Your task to perform on an android device: What is the recent news? Image 0: 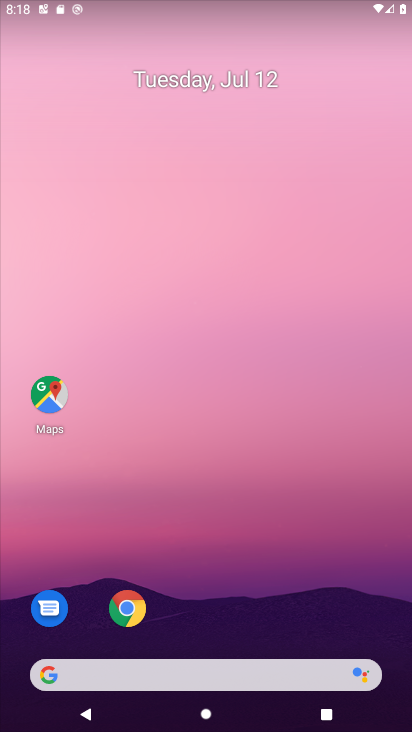
Step 0: click (165, 678)
Your task to perform on an android device: What is the recent news? Image 1: 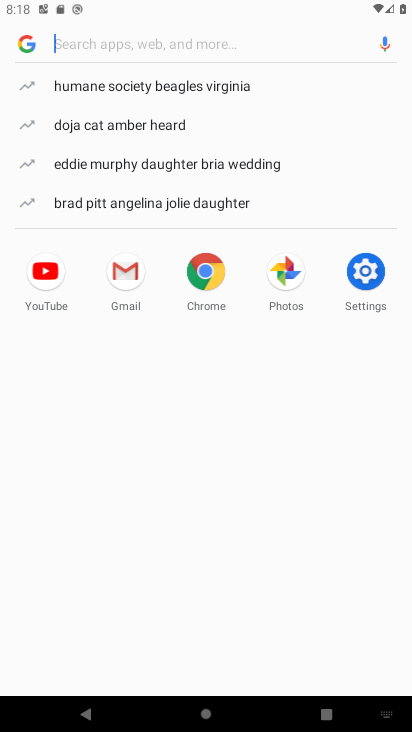
Step 1: click (270, 41)
Your task to perform on an android device: What is the recent news? Image 2: 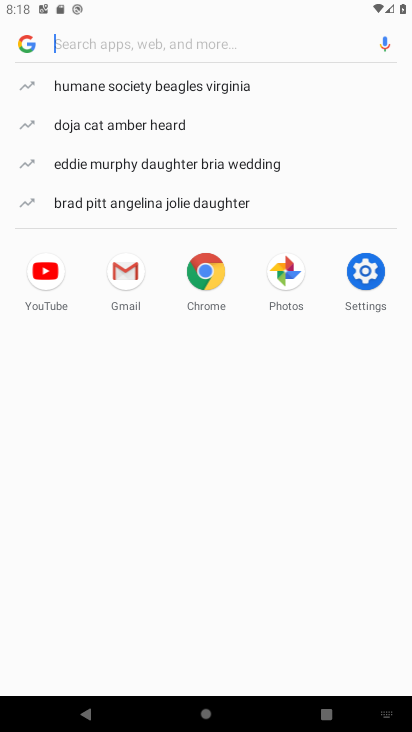
Step 2: type "recent news"
Your task to perform on an android device: What is the recent news? Image 3: 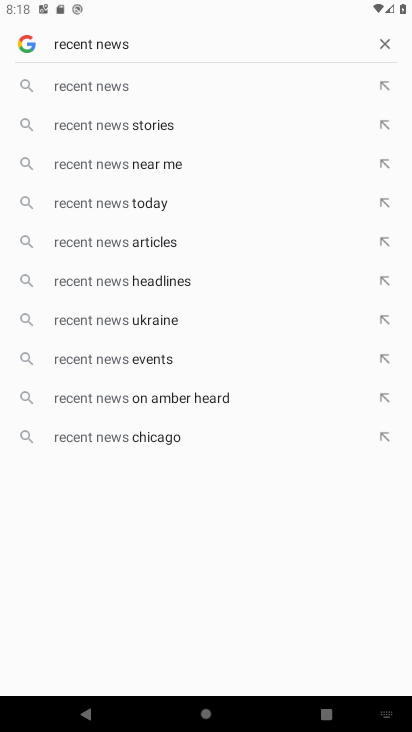
Step 3: click (99, 87)
Your task to perform on an android device: What is the recent news? Image 4: 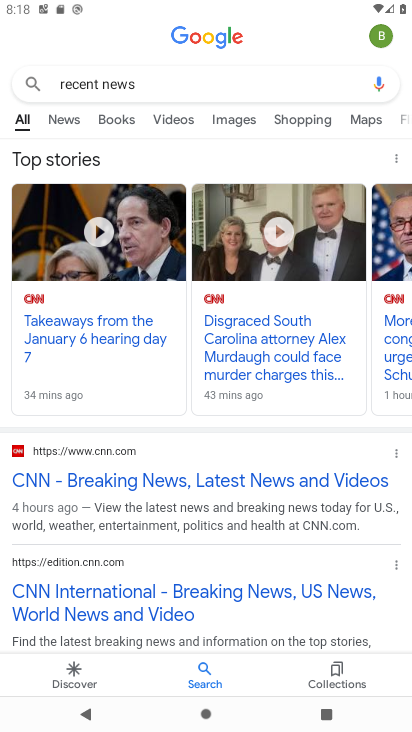
Step 4: click (65, 118)
Your task to perform on an android device: What is the recent news? Image 5: 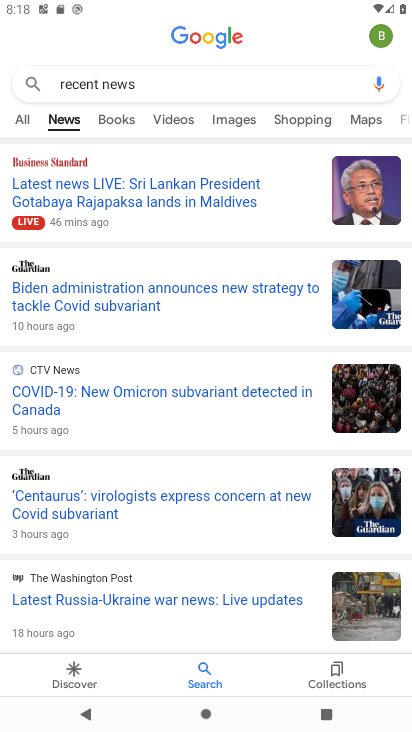
Step 5: task complete